Your task to perform on an android device: Search for pizza restaurants on Maps Image 0: 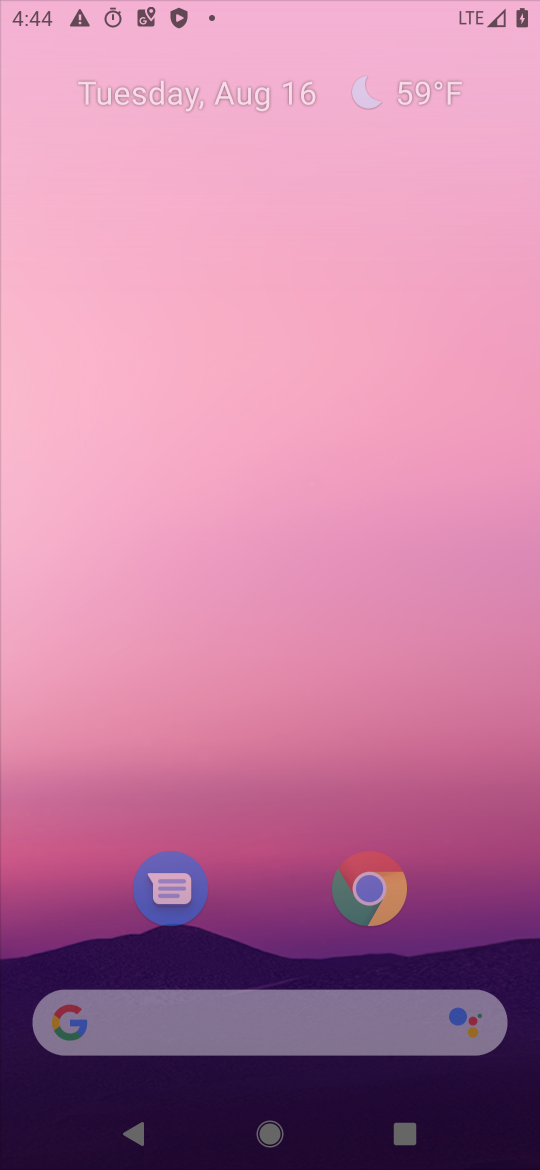
Step 0: click (279, 955)
Your task to perform on an android device: Search for pizza restaurants on Maps Image 1: 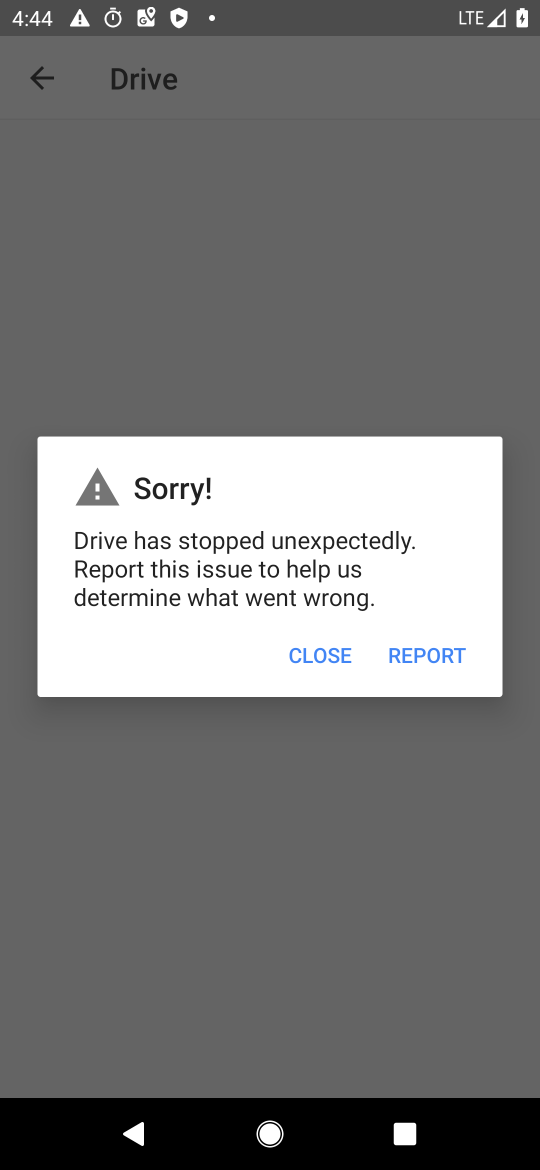
Step 1: press home button
Your task to perform on an android device: Search for pizza restaurants on Maps Image 2: 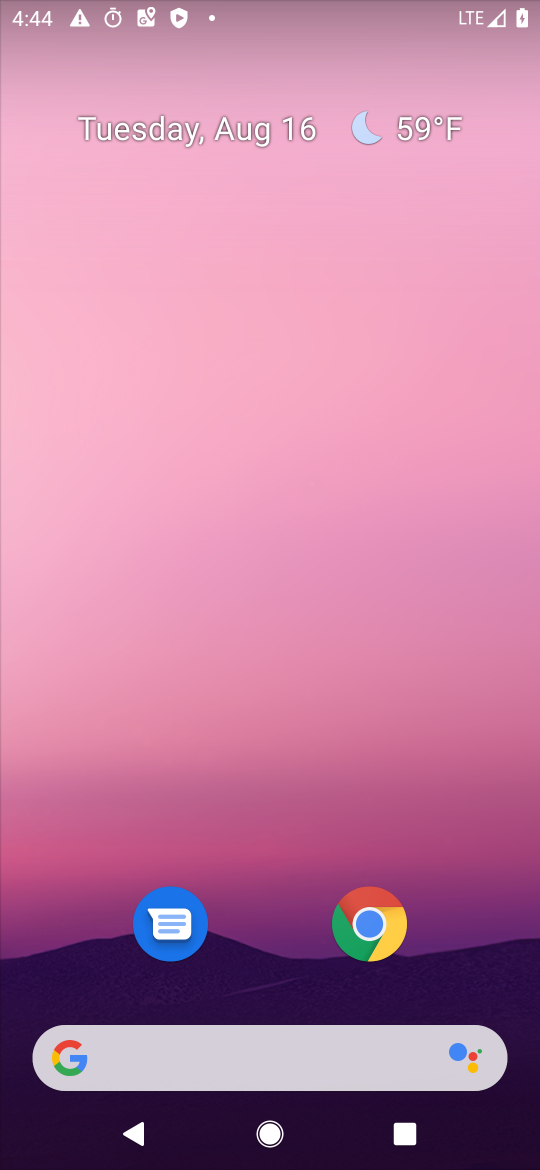
Step 2: drag from (240, 987) to (270, 140)
Your task to perform on an android device: Search for pizza restaurants on Maps Image 3: 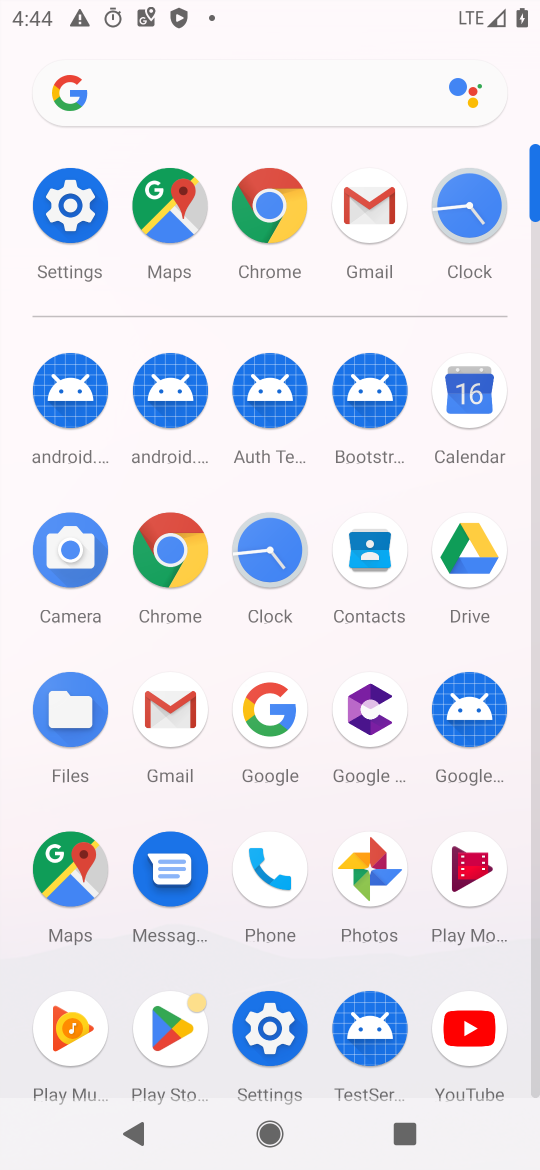
Step 3: click (177, 183)
Your task to perform on an android device: Search for pizza restaurants on Maps Image 4: 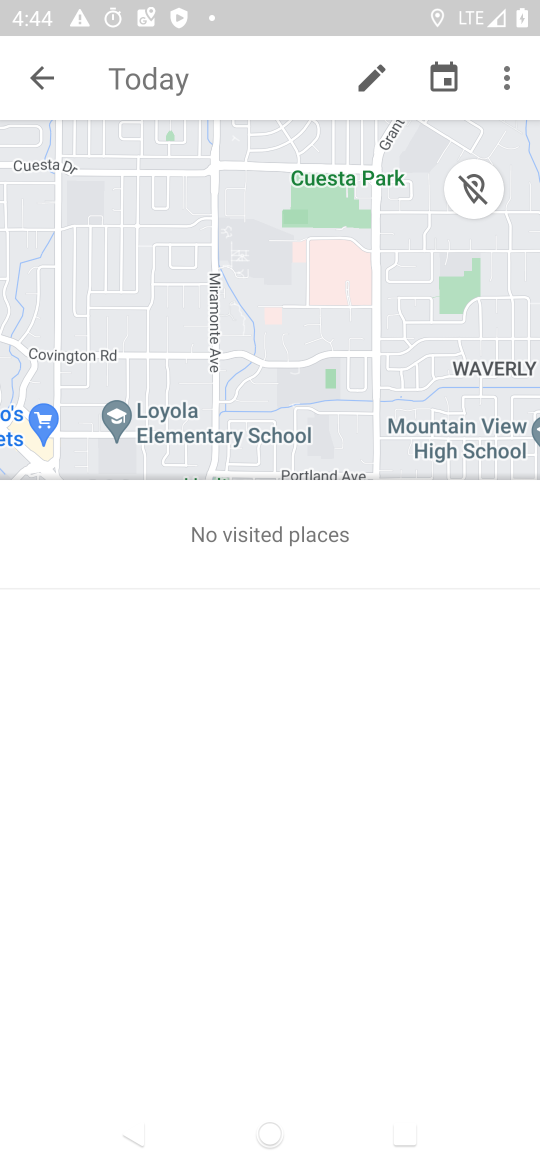
Step 4: click (45, 55)
Your task to perform on an android device: Search for pizza restaurants on Maps Image 5: 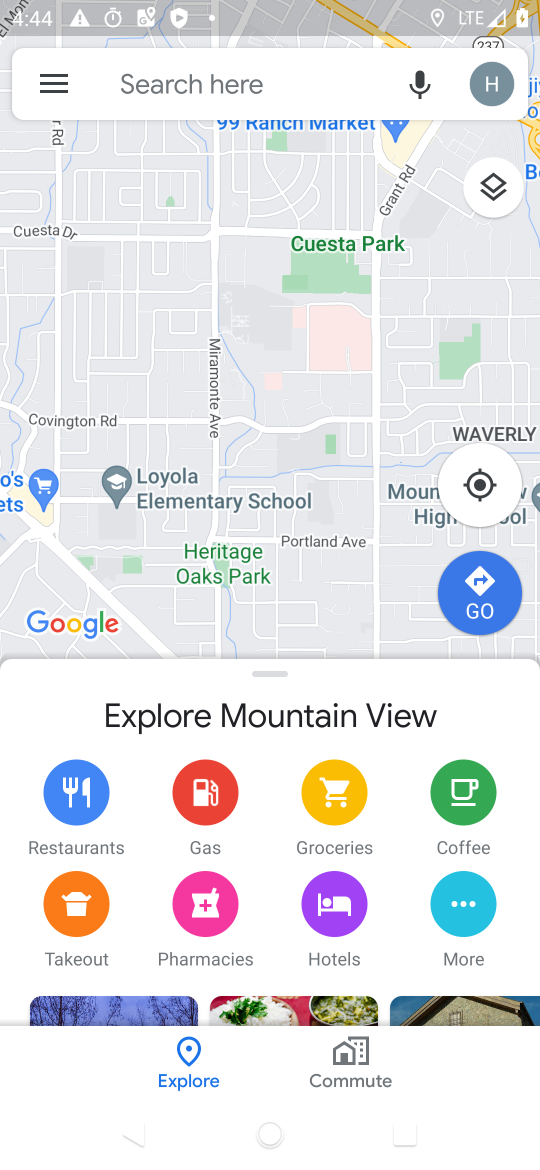
Step 5: click (238, 70)
Your task to perform on an android device: Search for pizza restaurants on Maps Image 6: 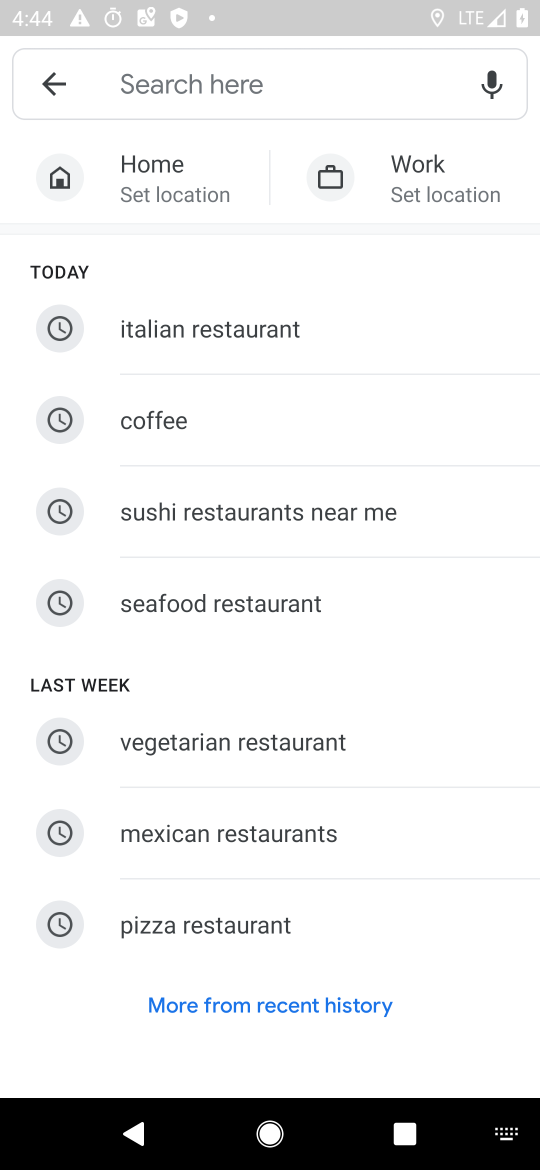
Step 6: click (247, 940)
Your task to perform on an android device: Search for pizza restaurants on Maps Image 7: 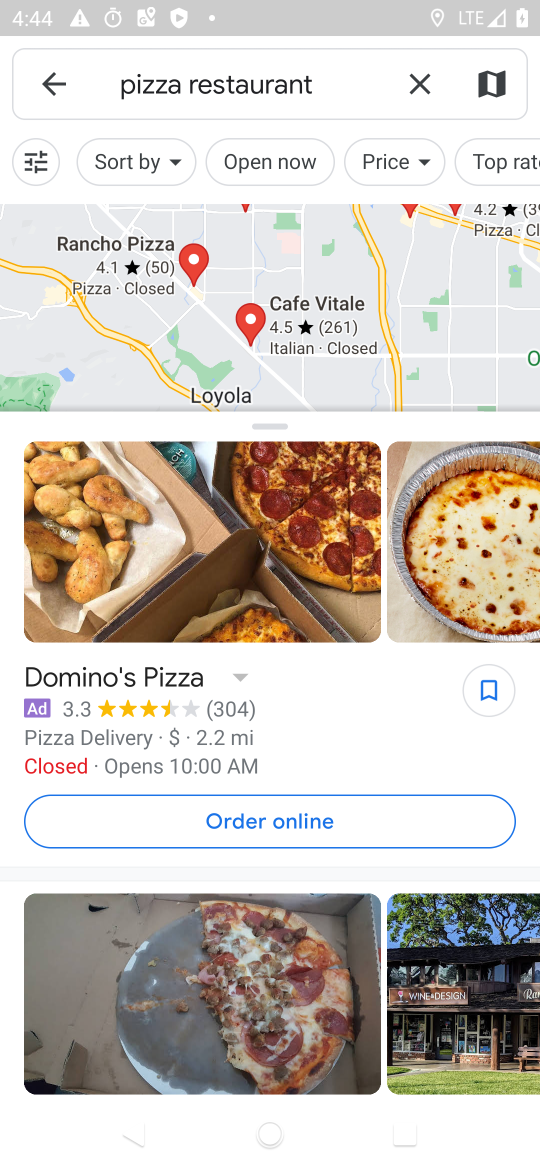
Step 7: task complete